Your task to perform on an android device: move an email to a new category in the gmail app Image 0: 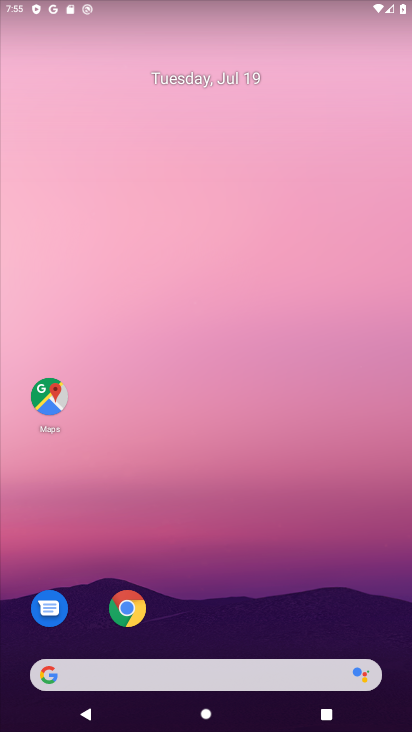
Step 0: drag from (384, 557) to (295, 91)
Your task to perform on an android device: move an email to a new category in the gmail app Image 1: 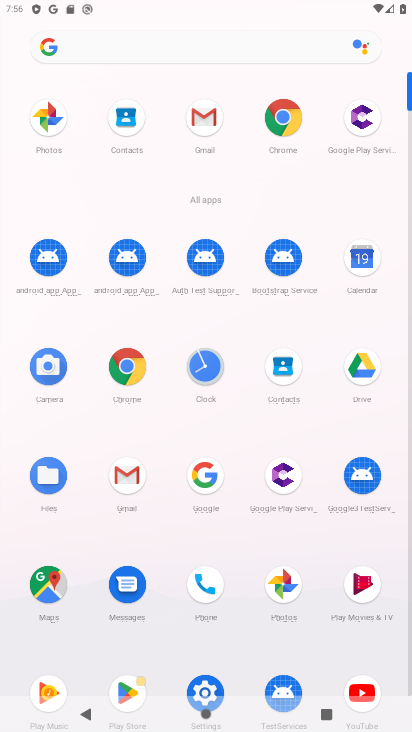
Step 1: click (128, 479)
Your task to perform on an android device: move an email to a new category in the gmail app Image 2: 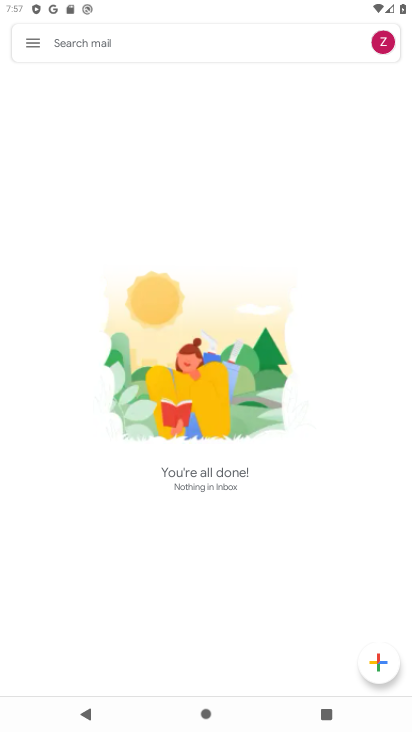
Step 2: task complete